Your task to perform on an android device: open app "Clock" (install if not already installed) Image 0: 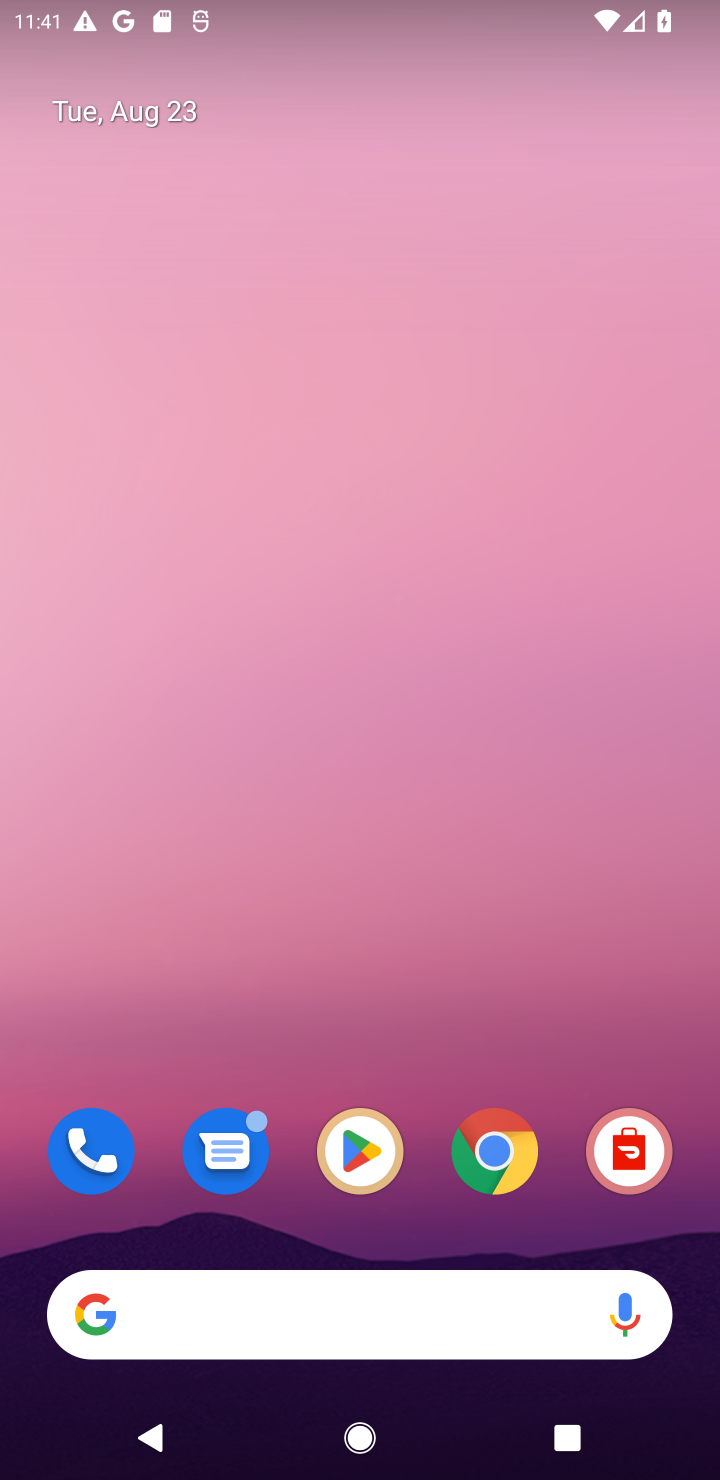
Step 0: click (389, 1140)
Your task to perform on an android device: open app "Clock" (install if not already installed) Image 1: 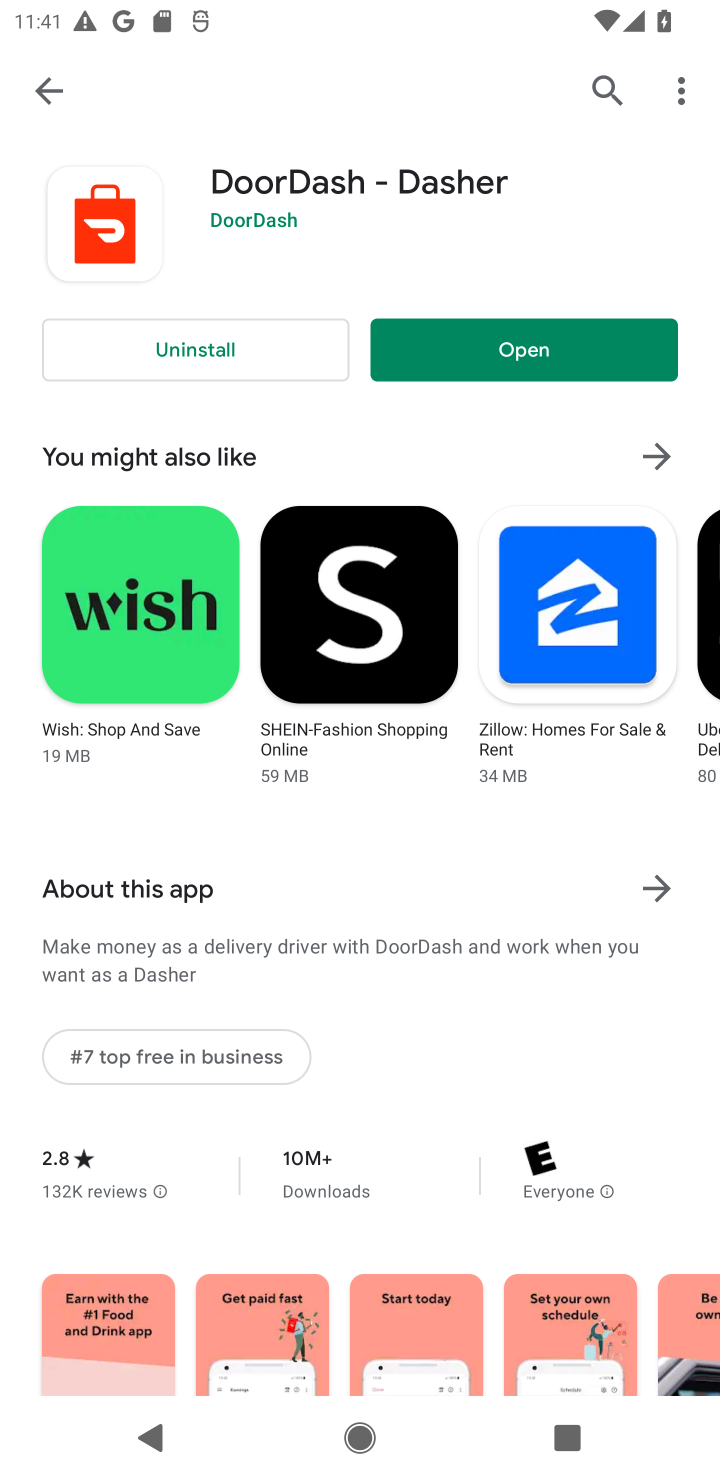
Step 1: click (615, 86)
Your task to perform on an android device: open app "Clock" (install if not already installed) Image 2: 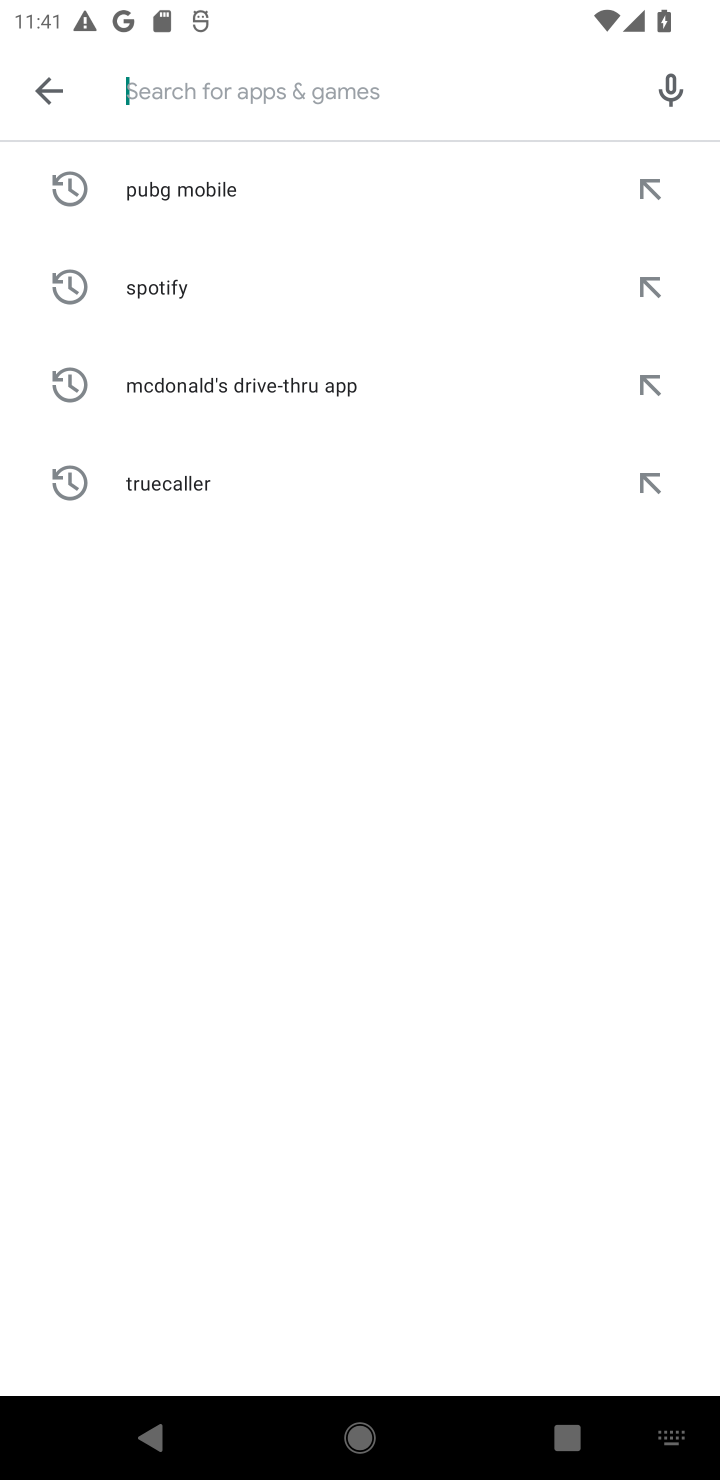
Step 2: type "Clock"
Your task to perform on an android device: open app "Clock" (install if not already installed) Image 3: 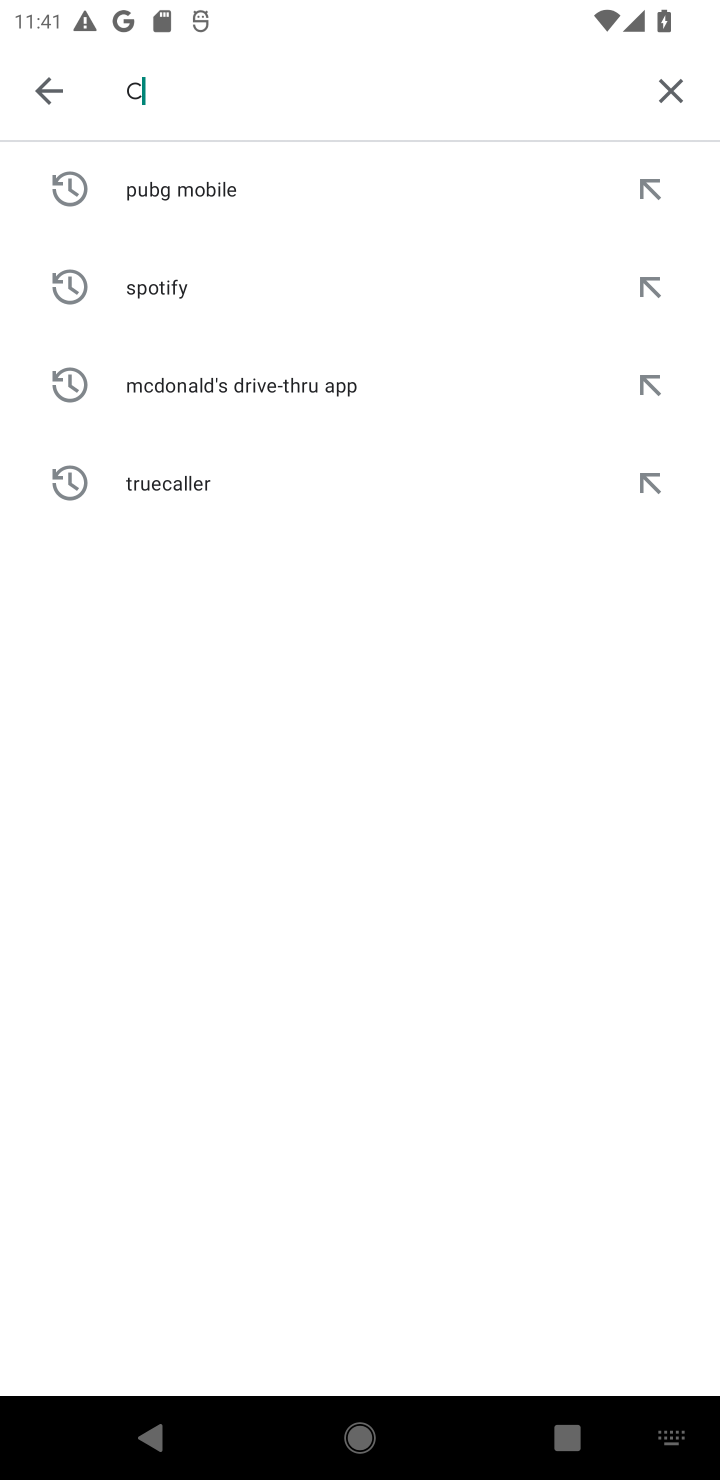
Step 3: type ""
Your task to perform on an android device: open app "Clock" (install if not already installed) Image 4: 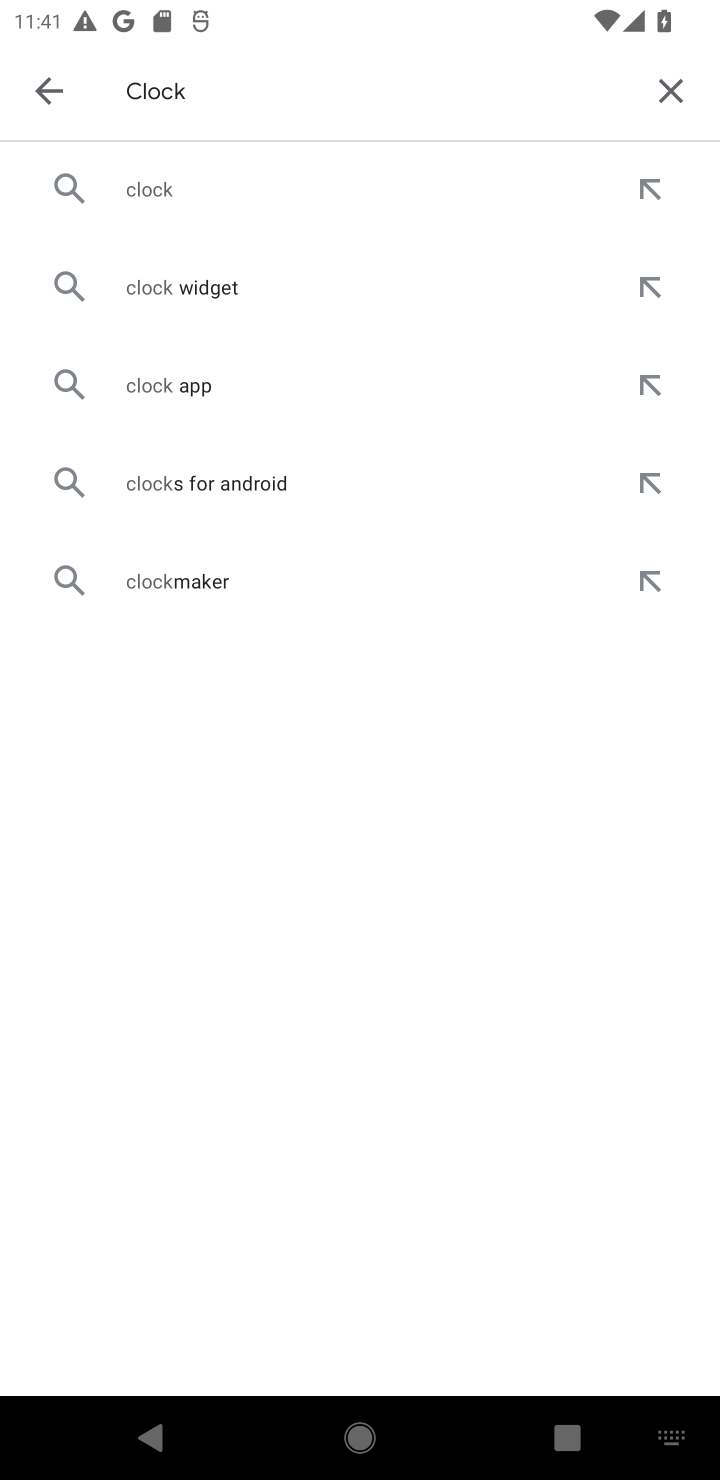
Step 4: click (237, 177)
Your task to perform on an android device: open app "Clock" (install if not already installed) Image 5: 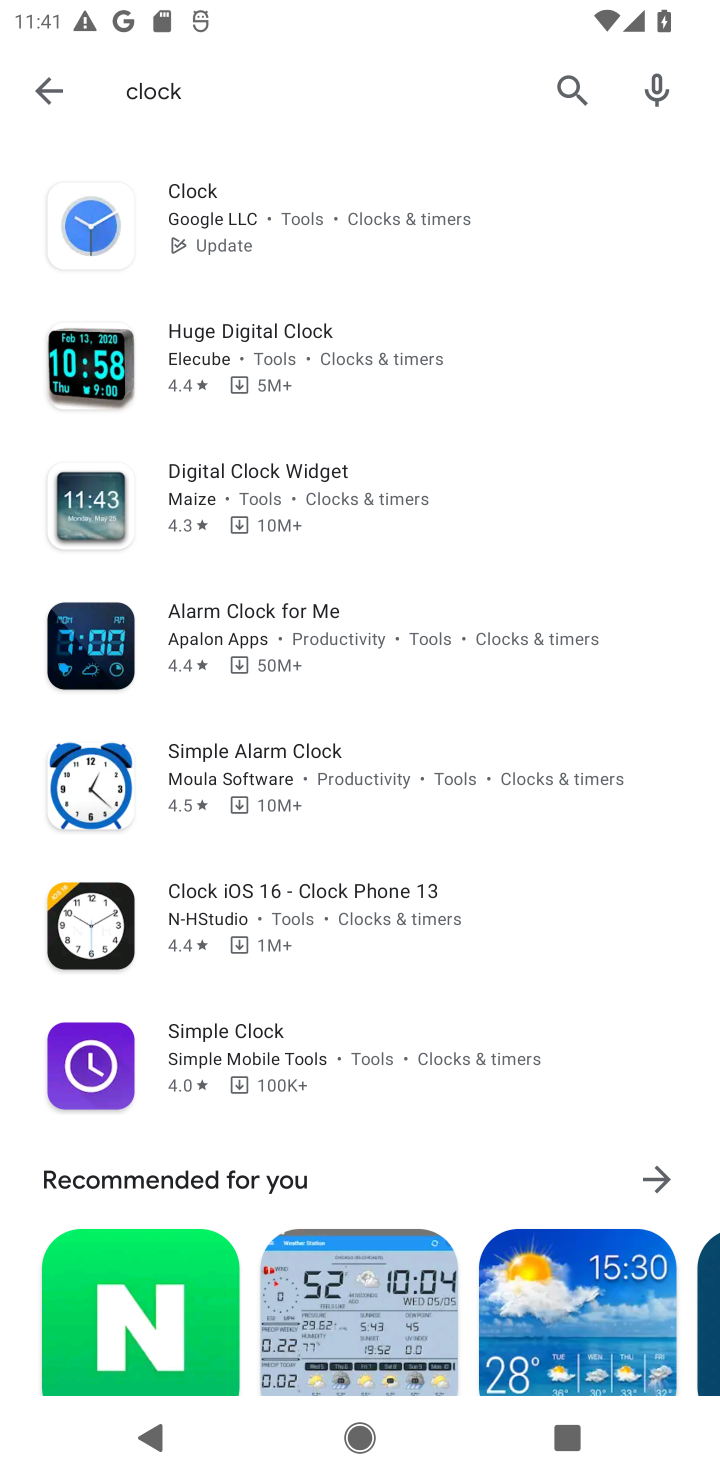
Step 5: click (237, 191)
Your task to perform on an android device: open app "Clock" (install if not already installed) Image 6: 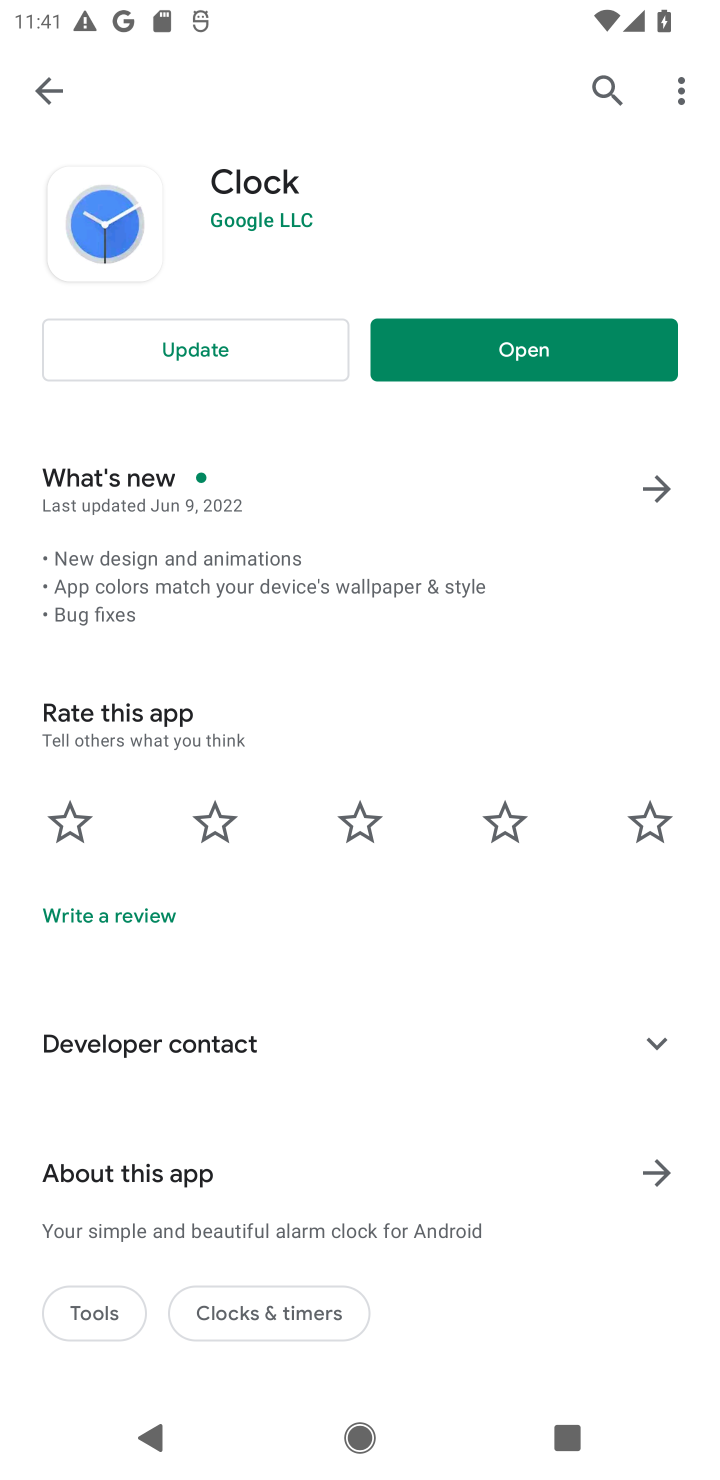
Step 6: click (515, 361)
Your task to perform on an android device: open app "Clock" (install if not already installed) Image 7: 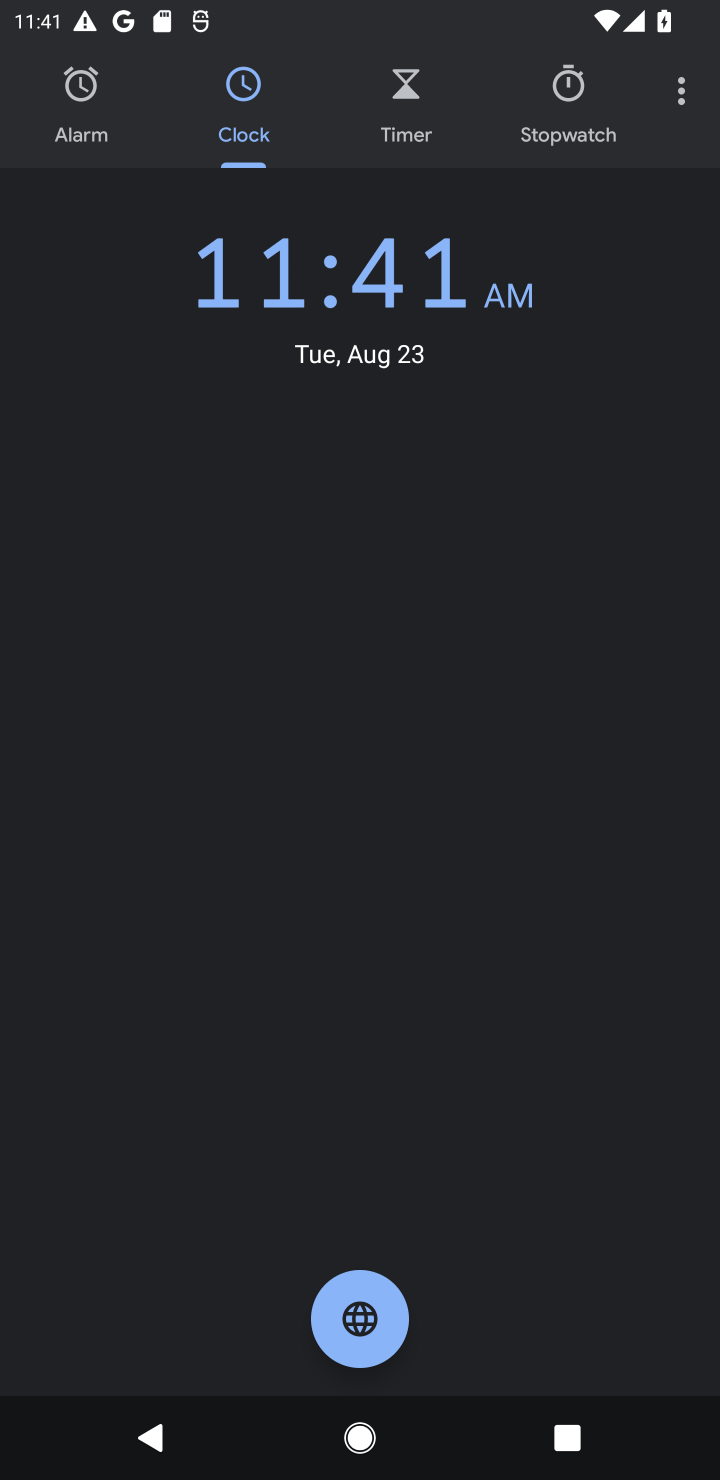
Step 7: task complete